Your task to perform on an android device: turn off location history Image 0: 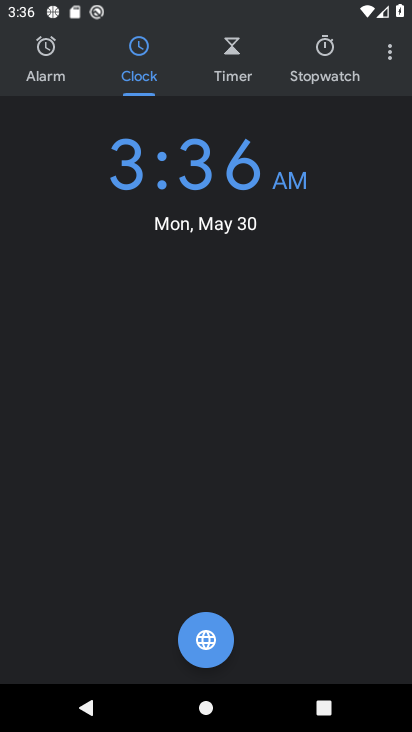
Step 0: drag from (304, 699) to (362, 431)
Your task to perform on an android device: turn off location history Image 1: 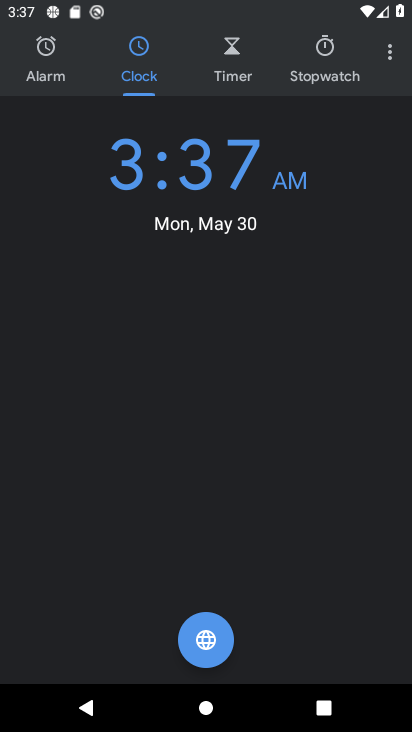
Step 1: press home button
Your task to perform on an android device: turn off location history Image 2: 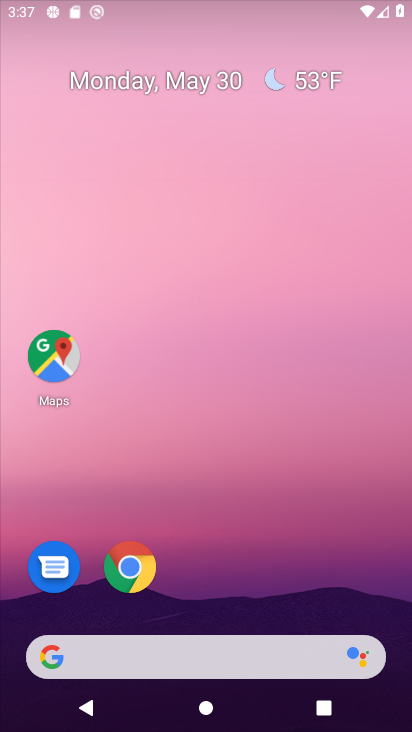
Step 2: drag from (180, 640) to (252, 103)
Your task to perform on an android device: turn off location history Image 3: 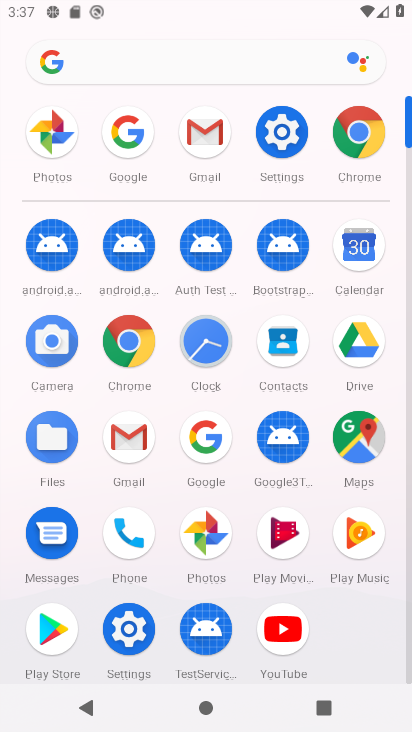
Step 3: click (278, 140)
Your task to perform on an android device: turn off location history Image 4: 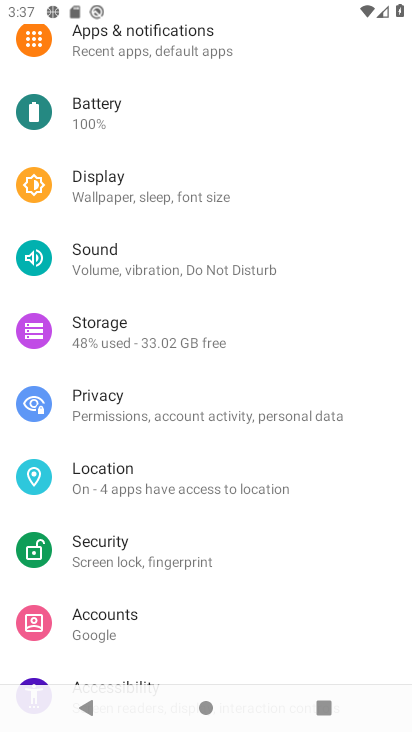
Step 4: click (169, 462)
Your task to perform on an android device: turn off location history Image 5: 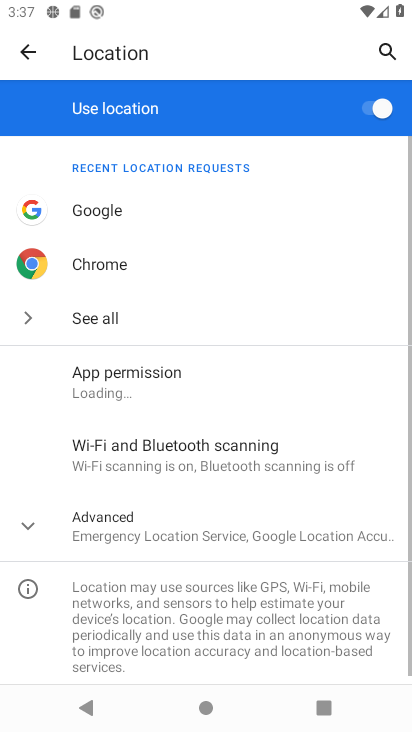
Step 5: drag from (162, 650) to (237, 420)
Your task to perform on an android device: turn off location history Image 6: 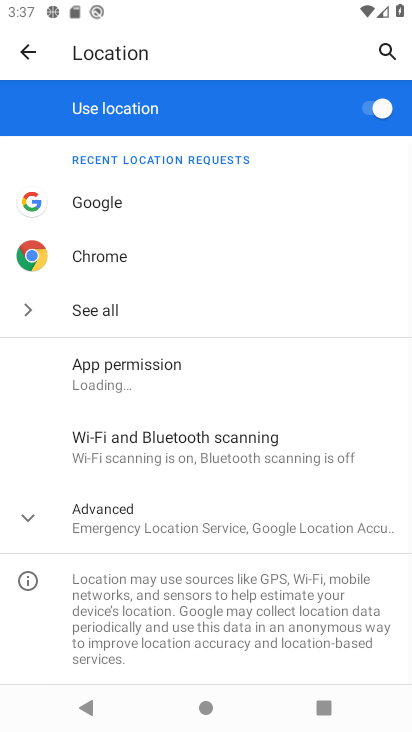
Step 6: click (160, 517)
Your task to perform on an android device: turn off location history Image 7: 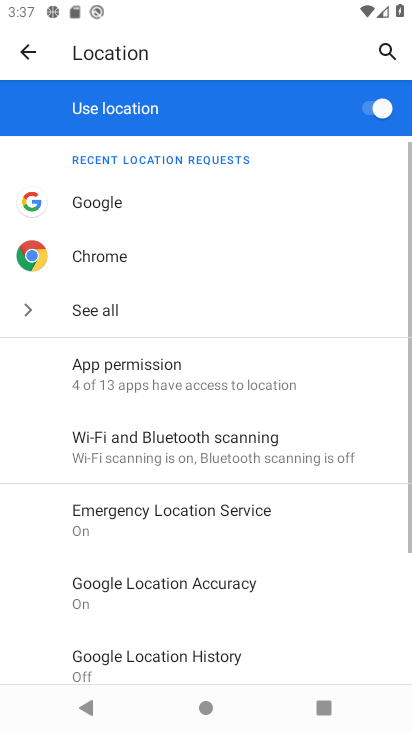
Step 7: click (232, 658)
Your task to perform on an android device: turn off location history Image 8: 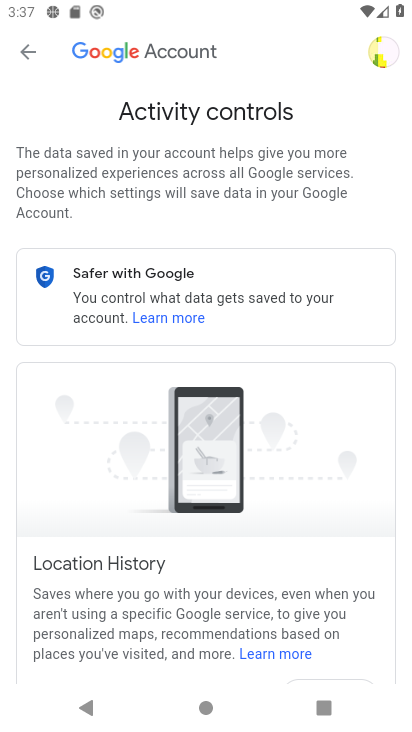
Step 8: task complete